Your task to perform on an android device: toggle data saver in the chrome app Image 0: 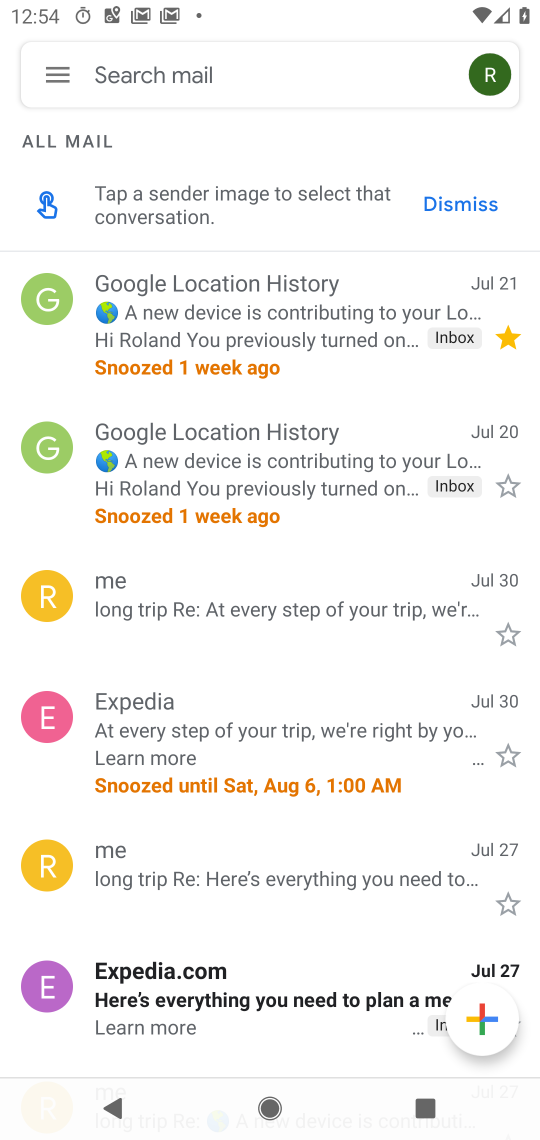
Step 0: press home button
Your task to perform on an android device: toggle data saver in the chrome app Image 1: 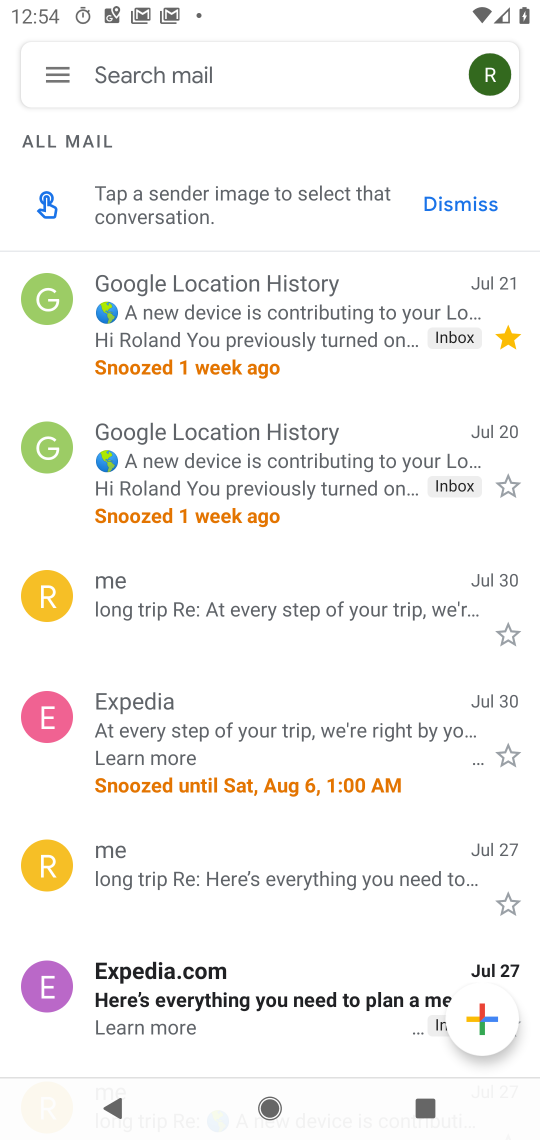
Step 1: press home button
Your task to perform on an android device: toggle data saver in the chrome app Image 2: 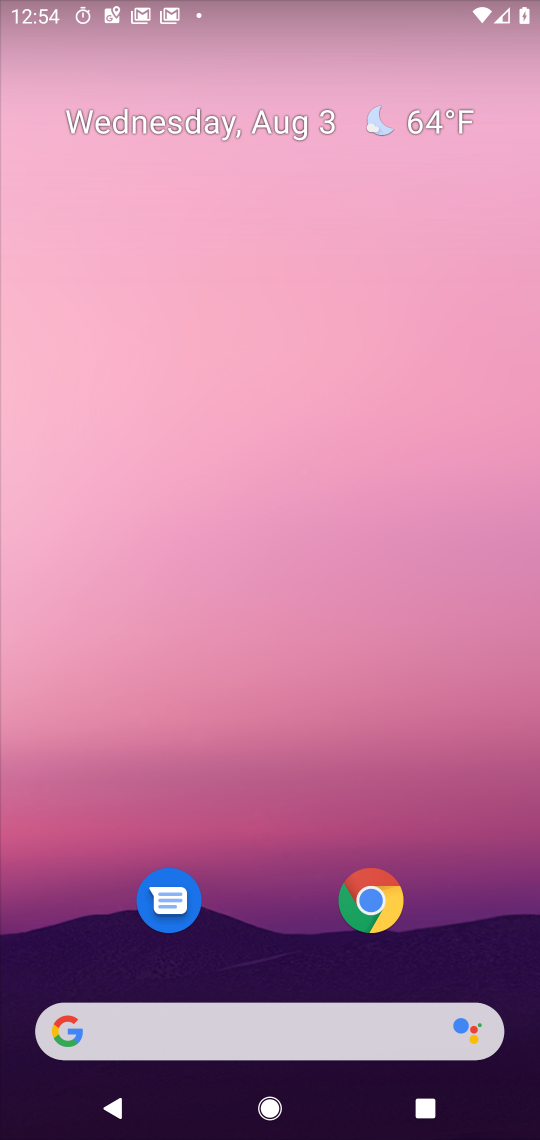
Step 2: drag from (268, 897) to (399, 86)
Your task to perform on an android device: toggle data saver in the chrome app Image 3: 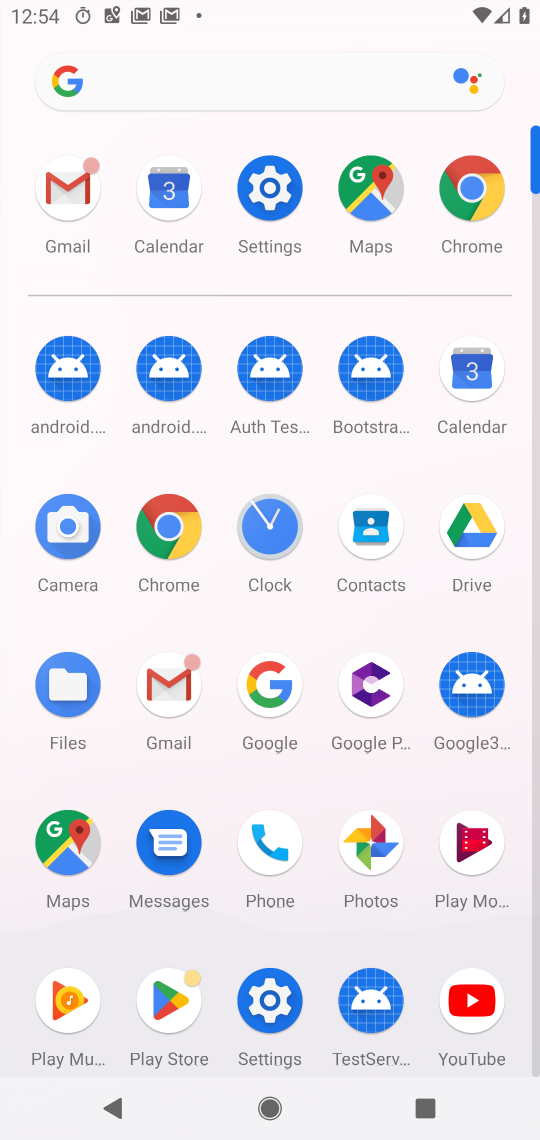
Step 3: click (171, 527)
Your task to perform on an android device: toggle data saver in the chrome app Image 4: 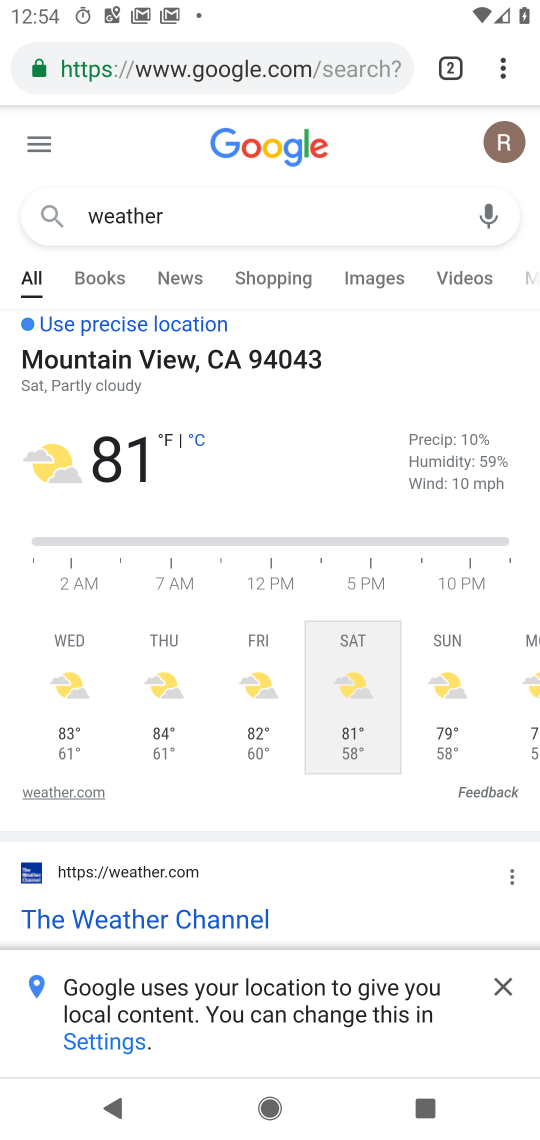
Step 4: drag from (509, 61) to (319, 846)
Your task to perform on an android device: toggle data saver in the chrome app Image 5: 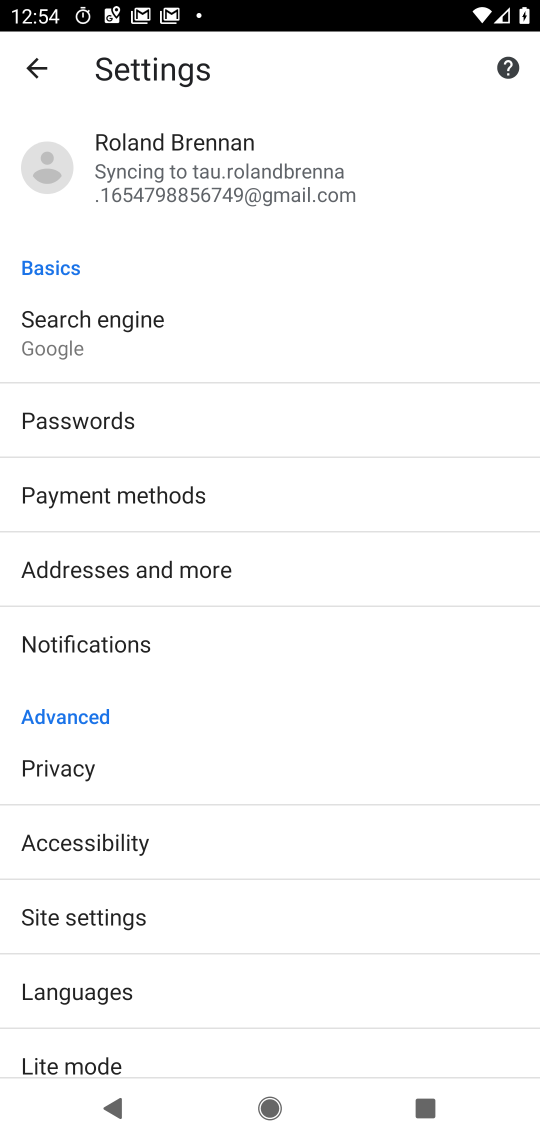
Step 5: drag from (312, 1003) to (346, 308)
Your task to perform on an android device: toggle data saver in the chrome app Image 6: 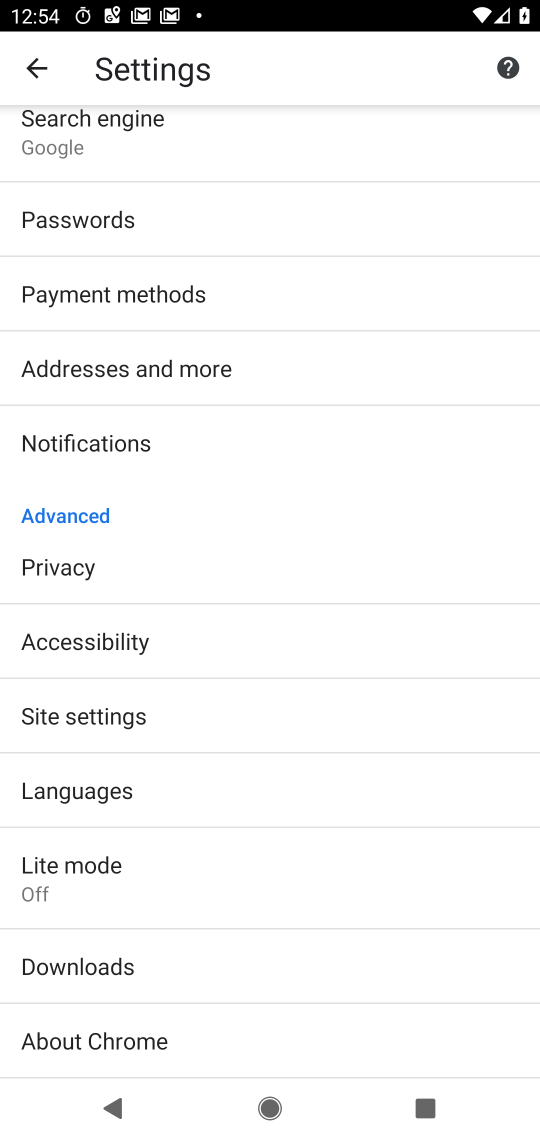
Step 6: click (234, 887)
Your task to perform on an android device: toggle data saver in the chrome app Image 7: 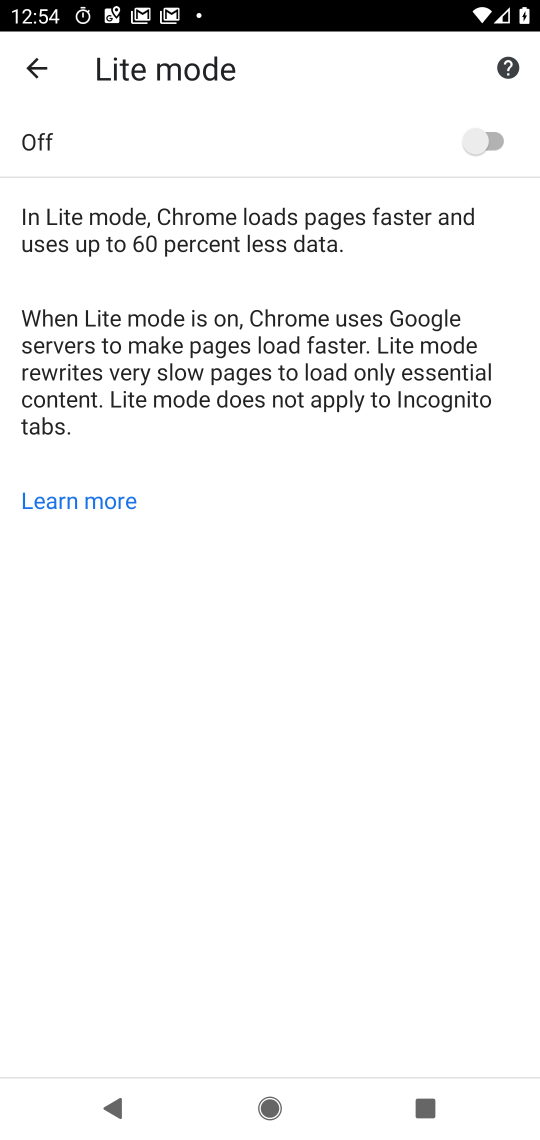
Step 7: click (448, 161)
Your task to perform on an android device: toggle data saver in the chrome app Image 8: 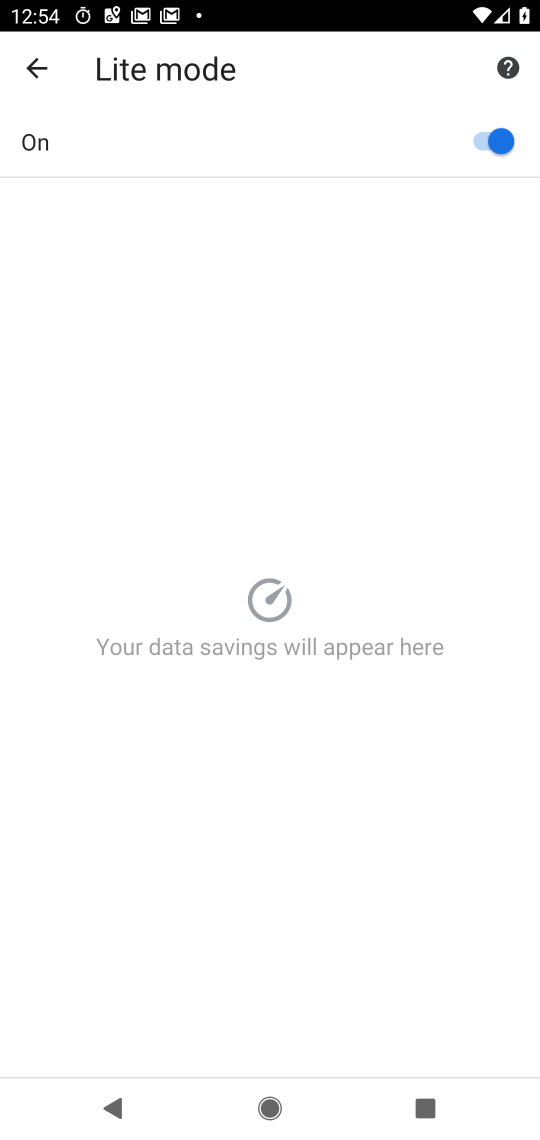
Step 8: task complete